Your task to perform on an android device: Open calendar and show me the fourth week of next month Image 0: 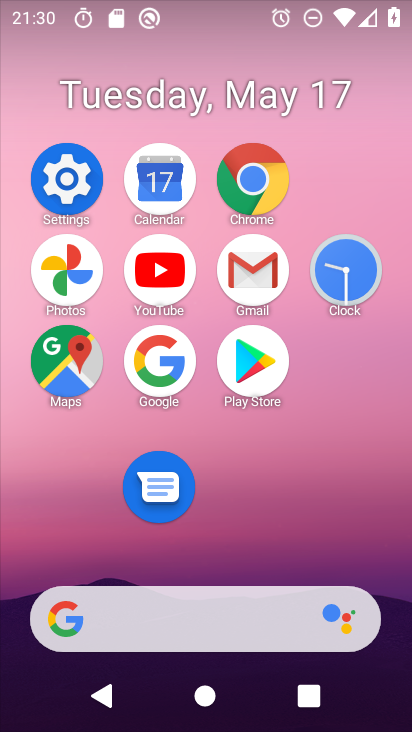
Step 0: click (159, 186)
Your task to perform on an android device: Open calendar and show me the fourth week of next month Image 1: 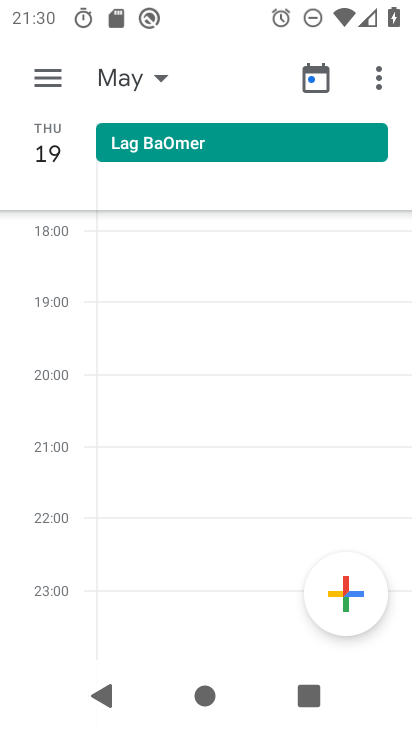
Step 1: click (165, 69)
Your task to perform on an android device: Open calendar and show me the fourth week of next month Image 2: 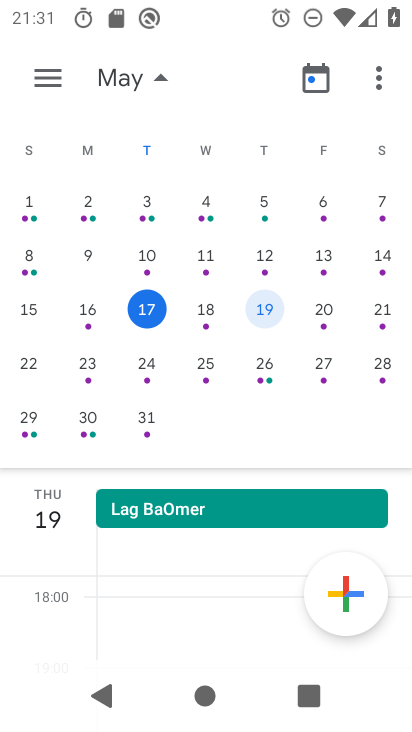
Step 2: drag from (402, 304) to (0, 277)
Your task to perform on an android device: Open calendar and show me the fourth week of next month Image 3: 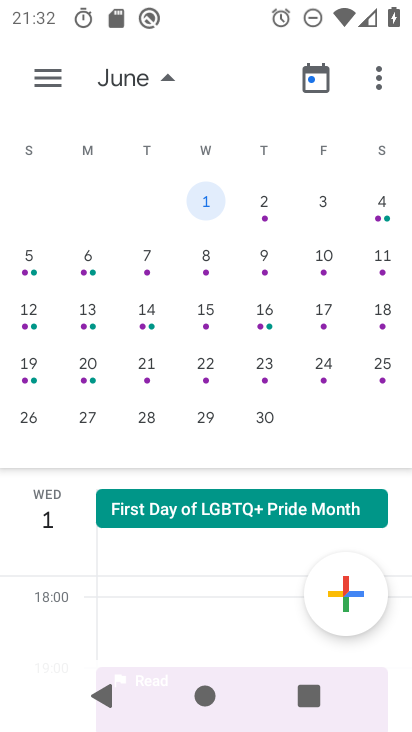
Step 3: click (50, 68)
Your task to perform on an android device: Open calendar and show me the fourth week of next month Image 4: 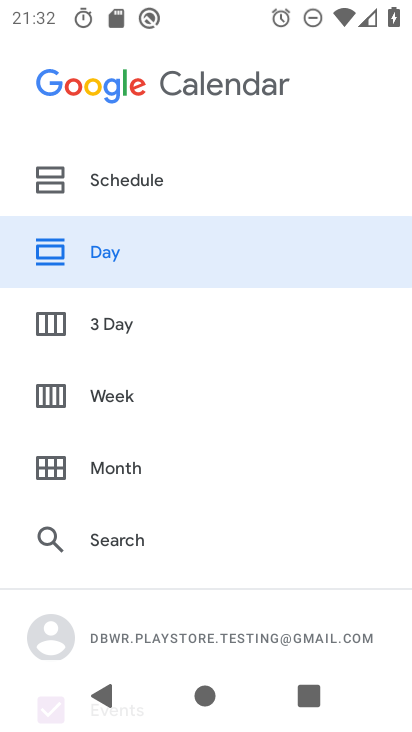
Step 4: click (152, 397)
Your task to perform on an android device: Open calendar and show me the fourth week of next month Image 5: 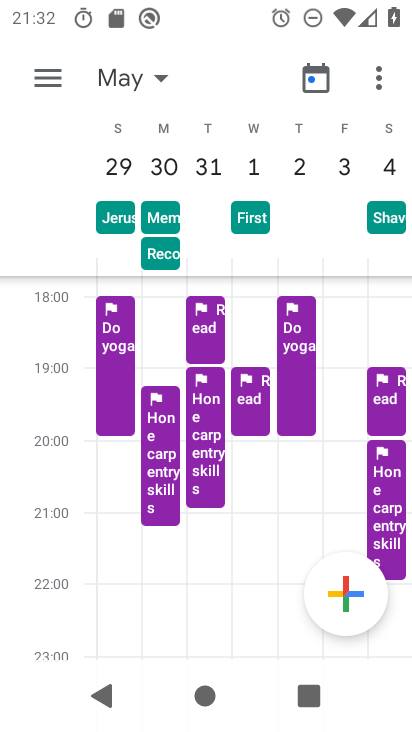
Step 5: task complete